Your task to perform on an android device: turn off location Image 0: 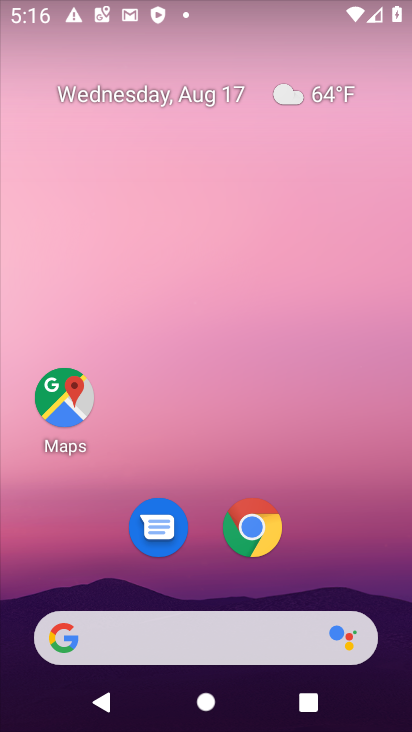
Step 0: drag from (183, 605) to (185, 206)
Your task to perform on an android device: turn off location Image 1: 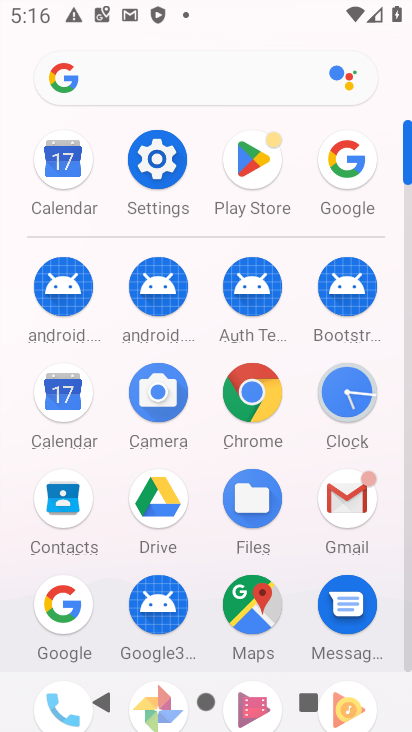
Step 1: click (139, 168)
Your task to perform on an android device: turn off location Image 2: 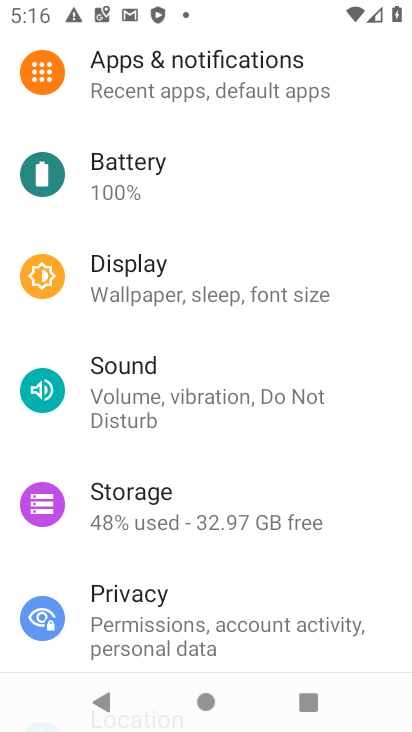
Step 2: click (155, 592)
Your task to perform on an android device: turn off location Image 3: 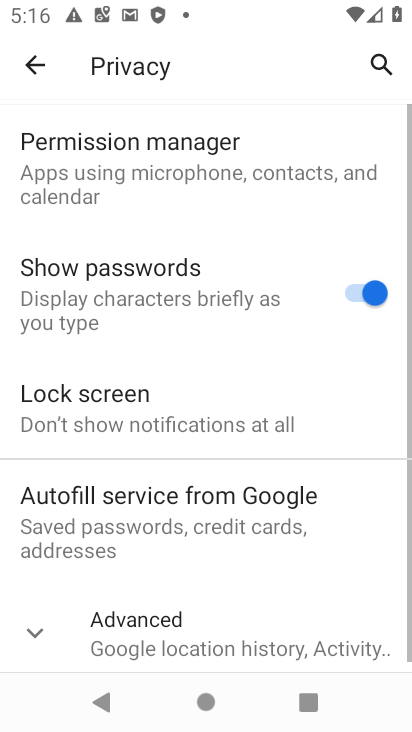
Step 3: click (33, 59)
Your task to perform on an android device: turn off location Image 4: 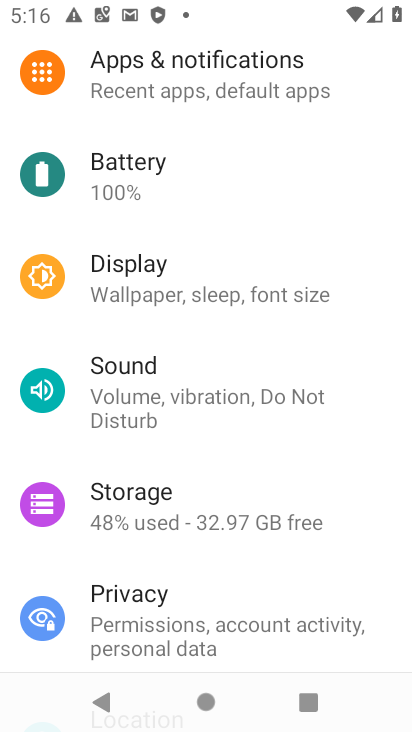
Step 4: drag from (176, 643) to (153, 370)
Your task to perform on an android device: turn off location Image 5: 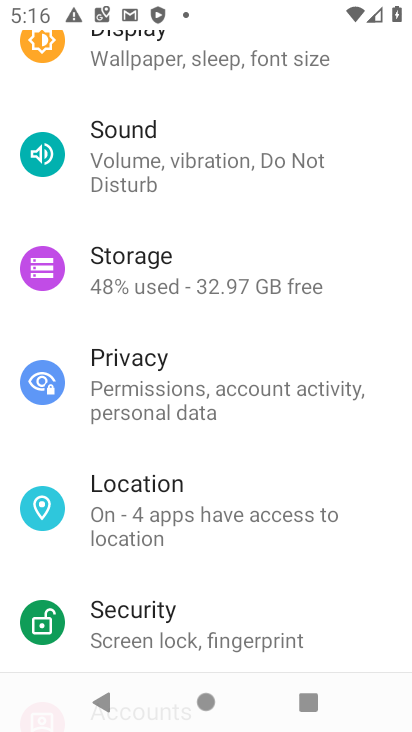
Step 5: click (143, 511)
Your task to perform on an android device: turn off location Image 6: 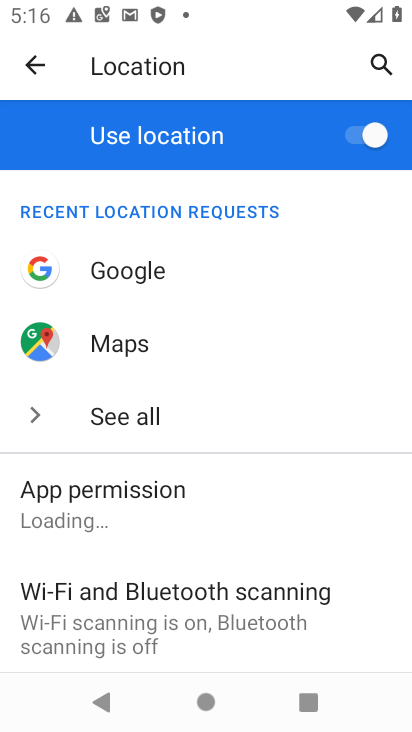
Step 6: drag from (115, 631) to (67, 280)
Your task to perform on an android device: turn off location Image 7: 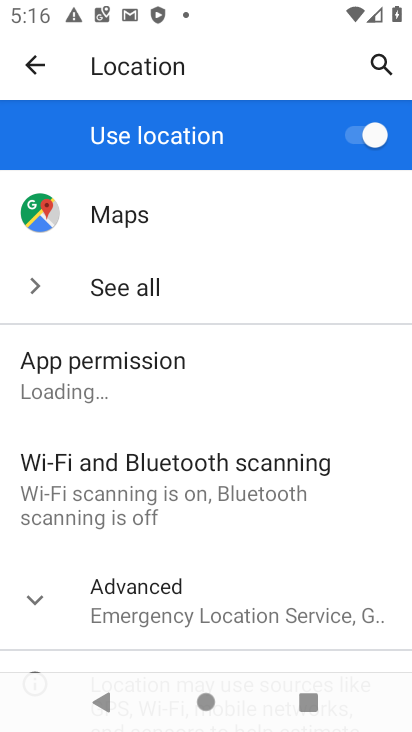
Step 7: click (114, 605)
Your task to perform on an android device: turn off location Image 8: 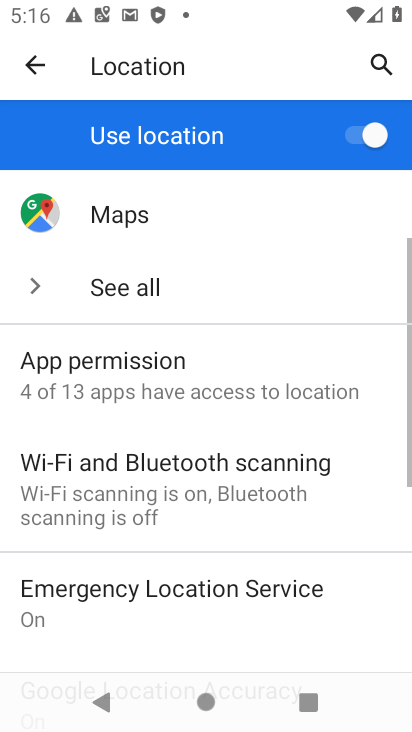
Step 8: task complete